Your task to perform on an android device: What's the latest video from GameSpot? Image 0: 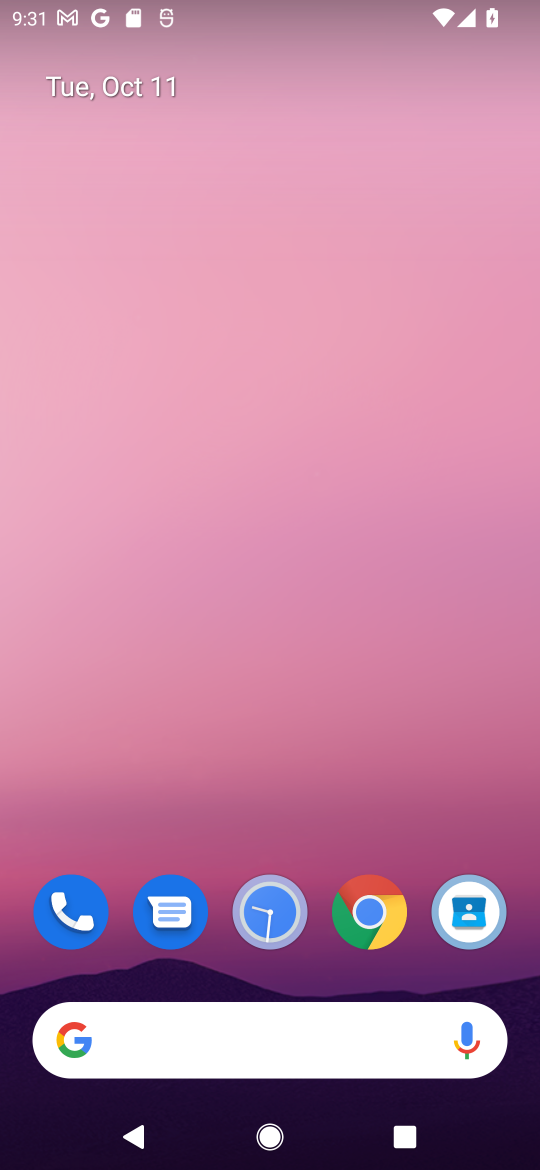
Step 0: drag from (431, 979) to (373, 255)
Your task to perform on an android device: What's the latest video from GameSpot? Image 1: 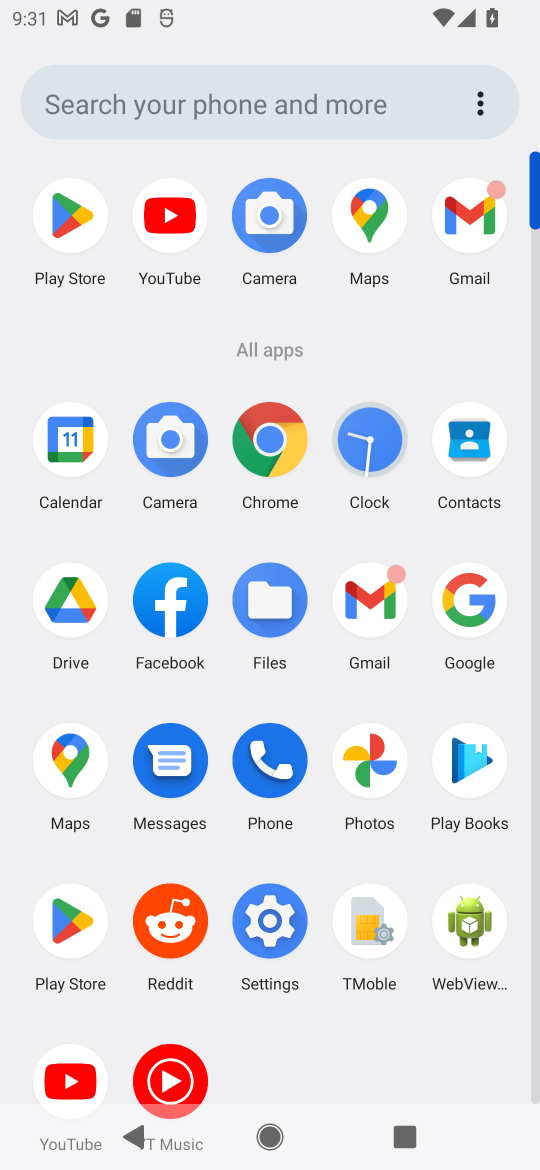
Step 1: click (62, 1077)
Your task to perform on an android device: What's the latest video from GameSpot? Image 2: 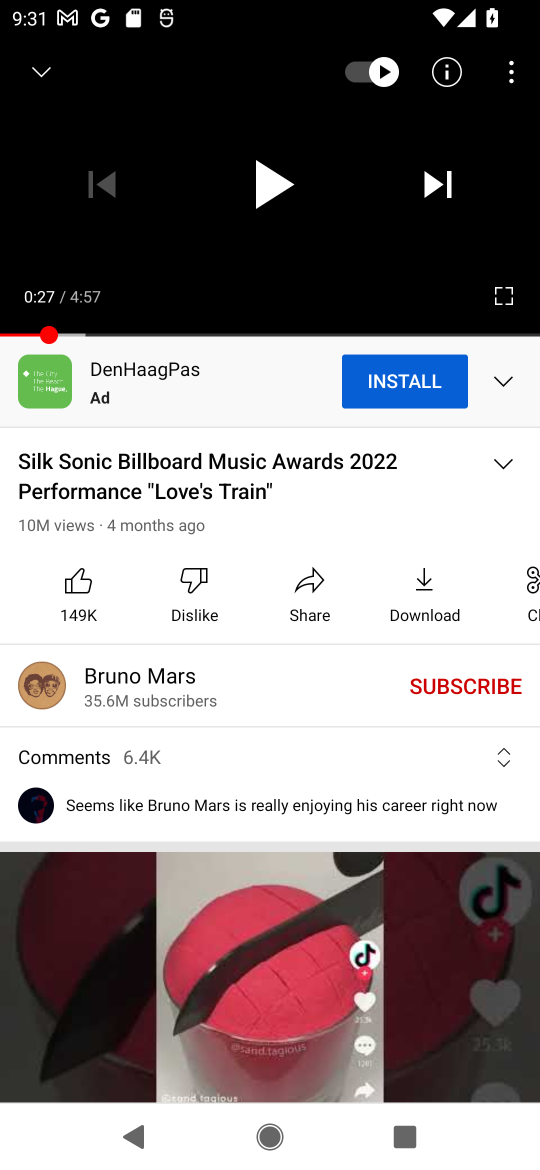
Step 2: click (43, 69)
Your task to perform on an android device: What's the latest video from GameSpot? Image 3: 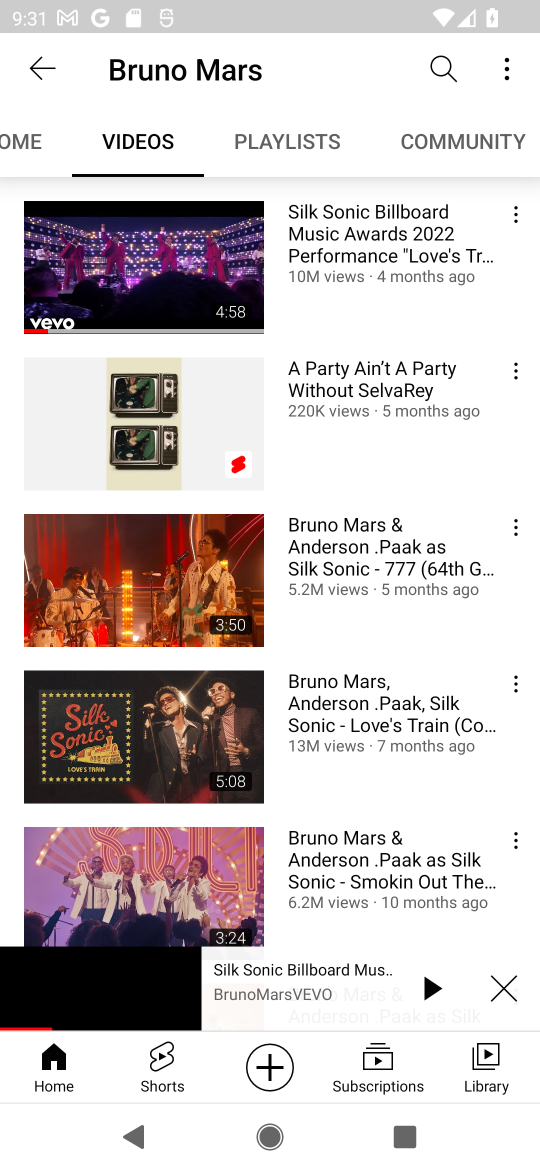
Step 3: click (503, 979)
Your task to perform on an android device: What's the latest video from GameSpot? Image 4: 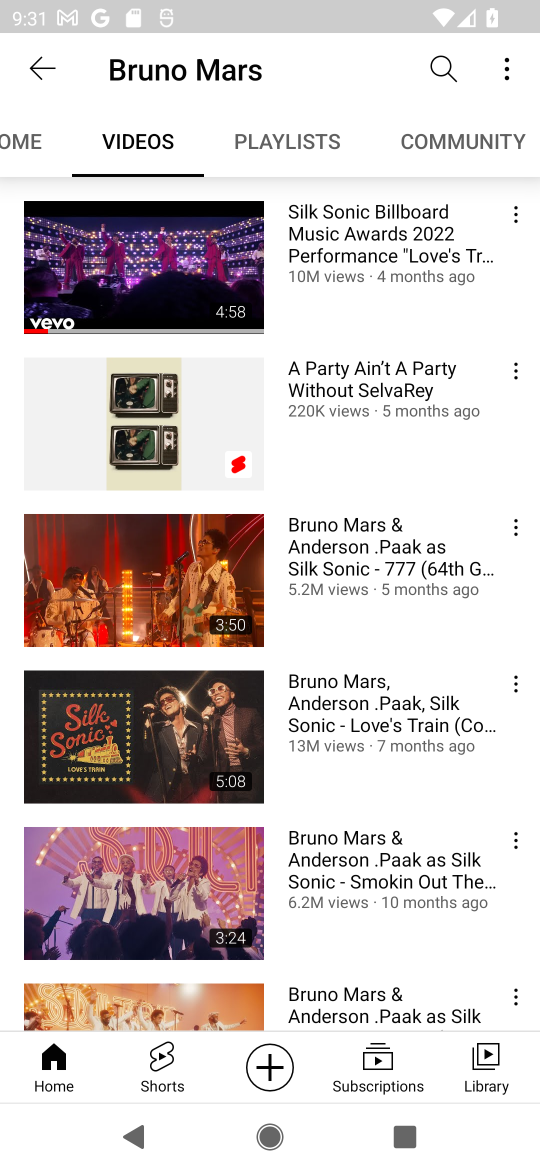
Step 4: click (444, 62)
Your task to perform on an android device: What's the latest video from GameSpot? Image 5: 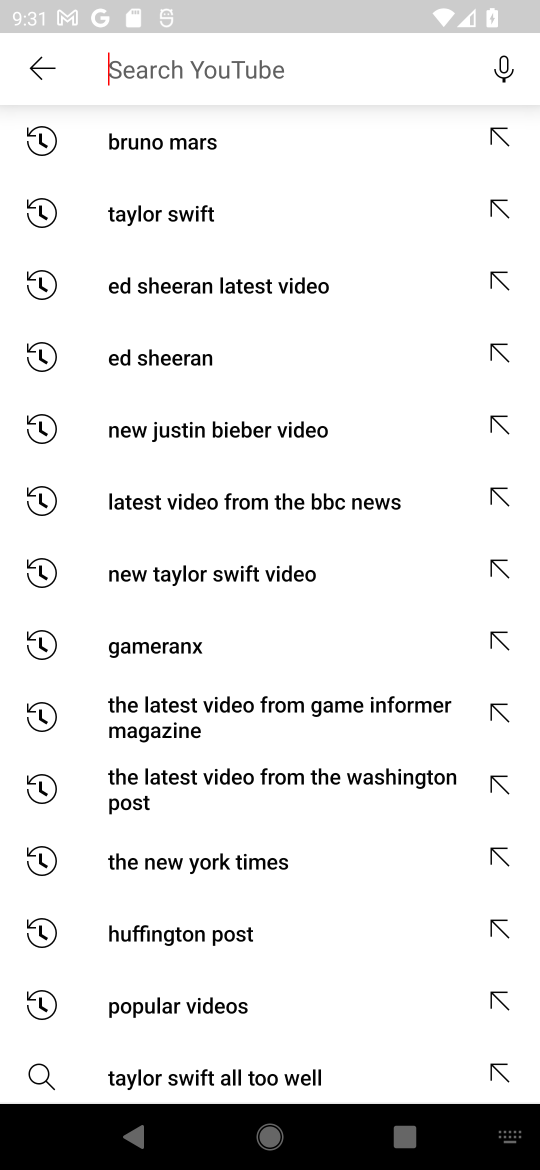
Step 5: type "gamespot"
Your task to perform on an android device: What's the latest video from GameSpot? Image 6: 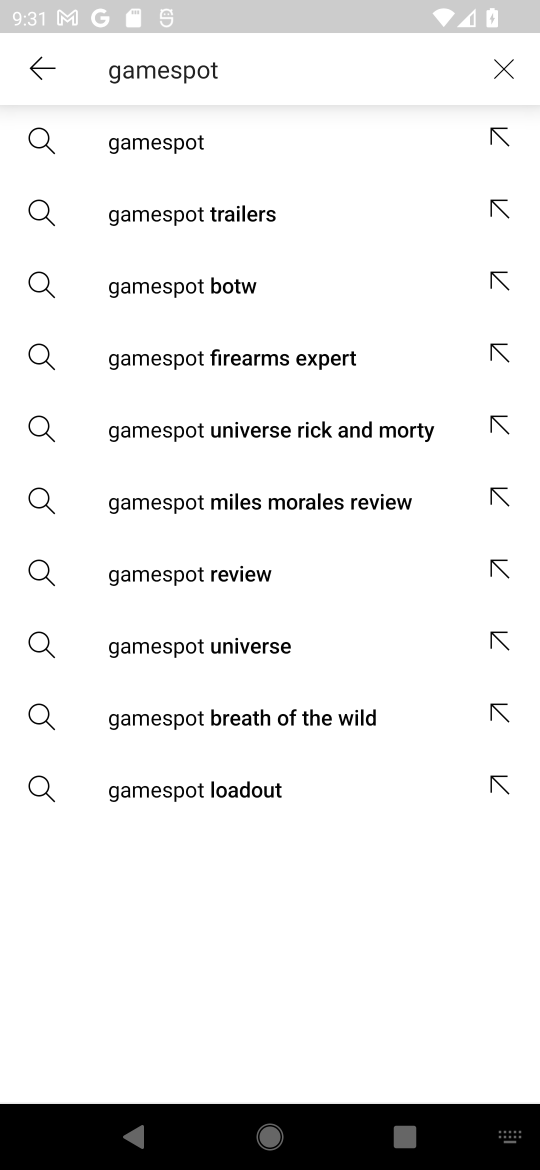
Step 6: click (187, 137)
Your task to perform on an android device: What's the latest video from GameSpot? Image 7: 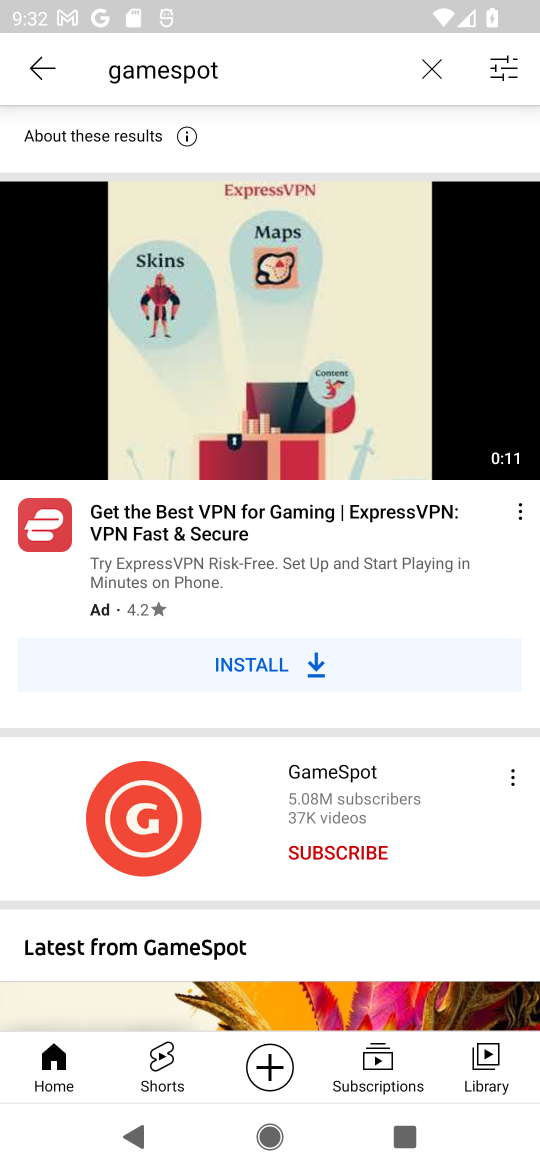
Step 7: click (338, 767)
Your task to perform on an android device: What's the latest video from GameSpot? Image 8: 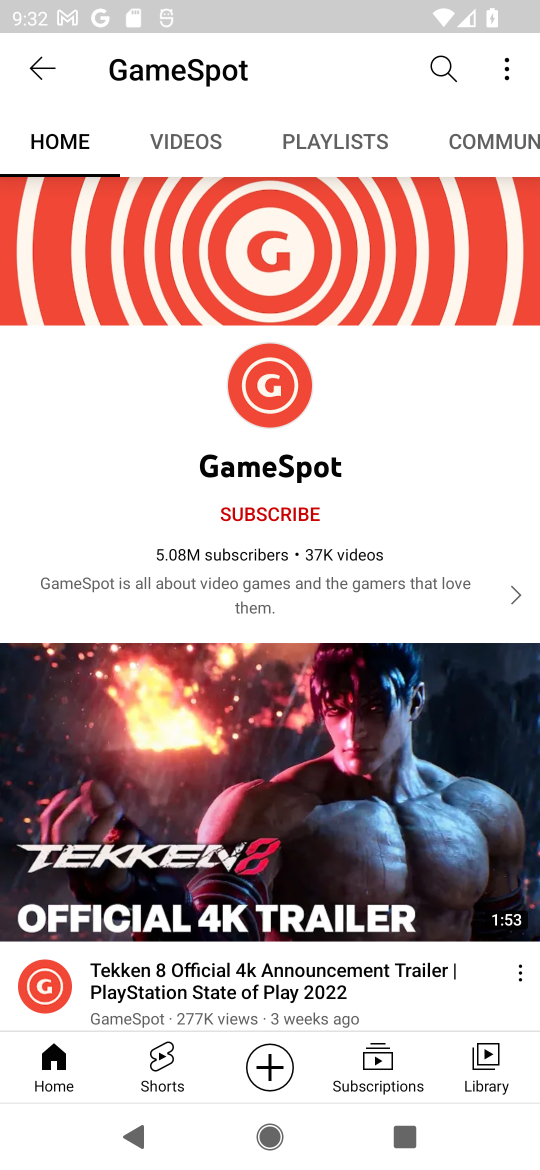
Step 8: click (185, 137)
Your task to perform on an android device: What's the latest video from GameSpot? Image 9: 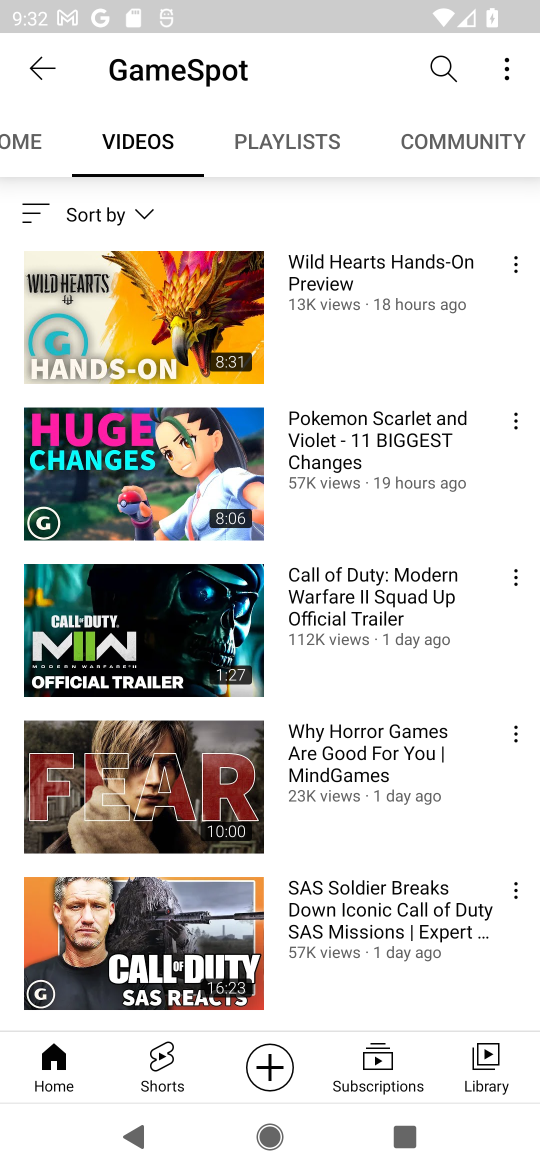
Step 9: click (192, 326)
Your task to perform on an android device: What's the latest video from GameSpot? Image 10: 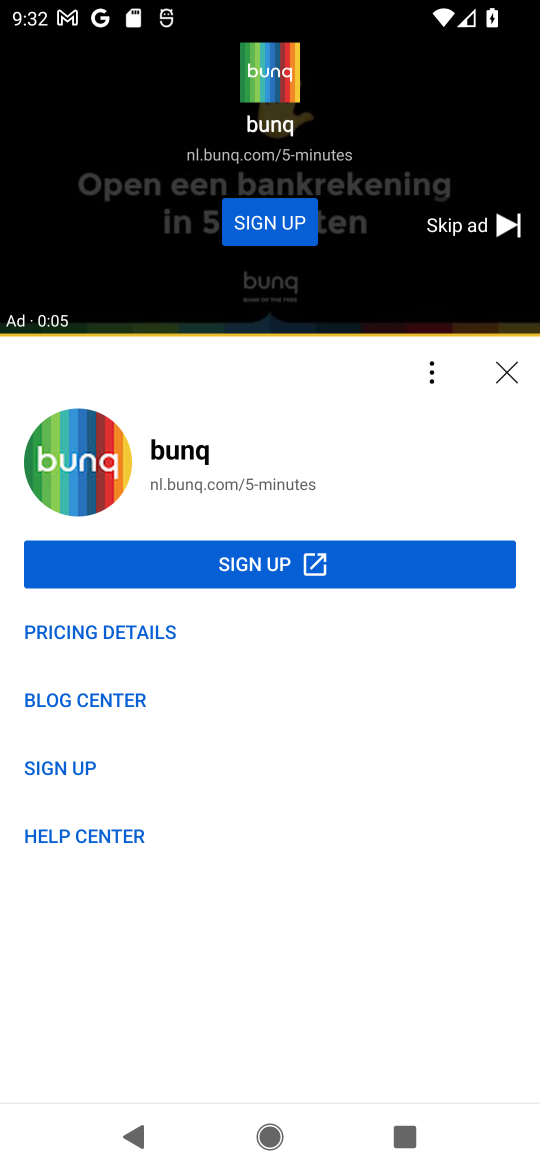
Step 10: click (482, 255)
Your task to perform on an android device: What's the latest video from GameSpot? Image 11: 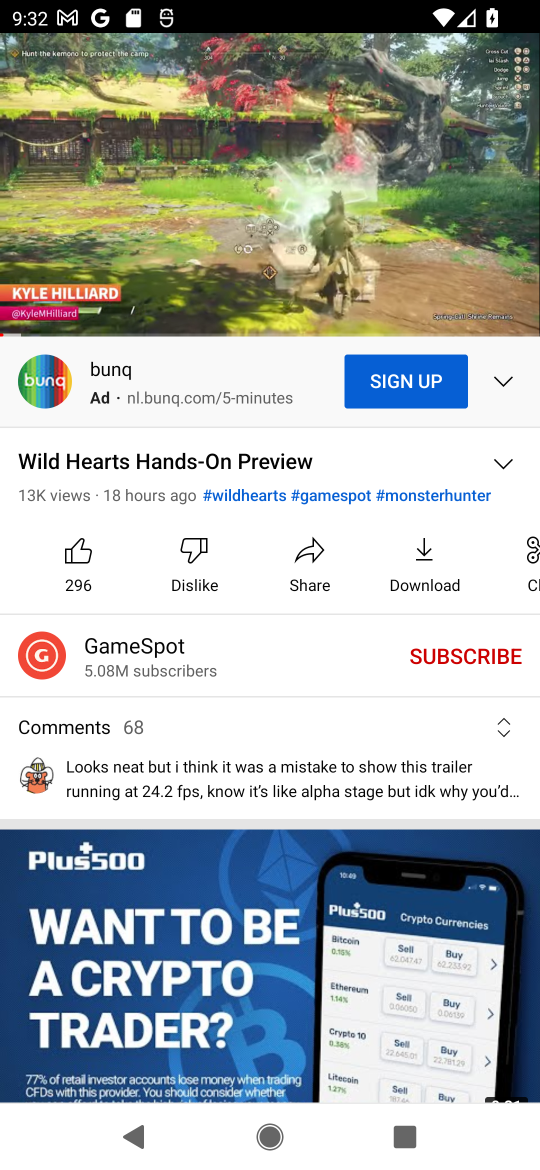
Step 11: click (280, 184)
Your task to perform on an android device: What's the latest video from GameSpot? Image 12: 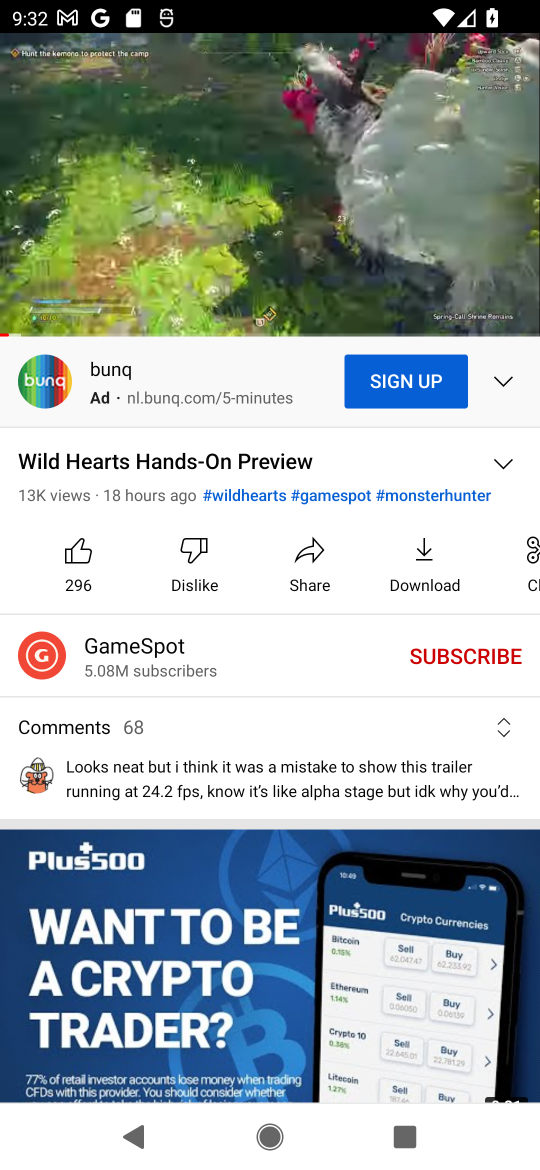
Step 12: click (280, 184)
Your task to perform on an android device: What's the latest video from GameSpot? Image 13: 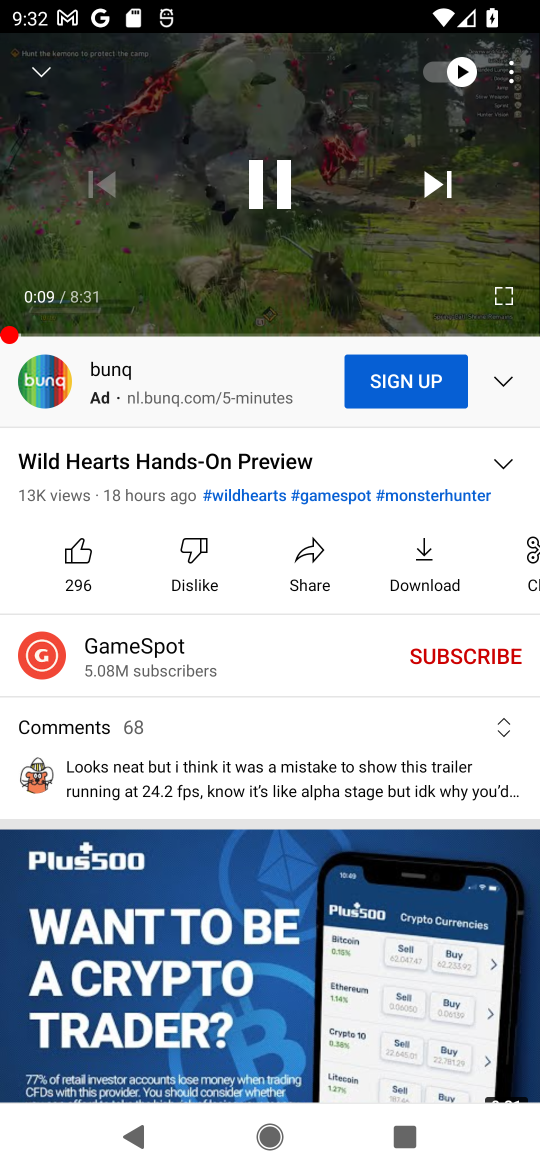
Step 13: click (280, 184)
Your task to perform on an android device: What's the latest video from GameSpot? Image 14: 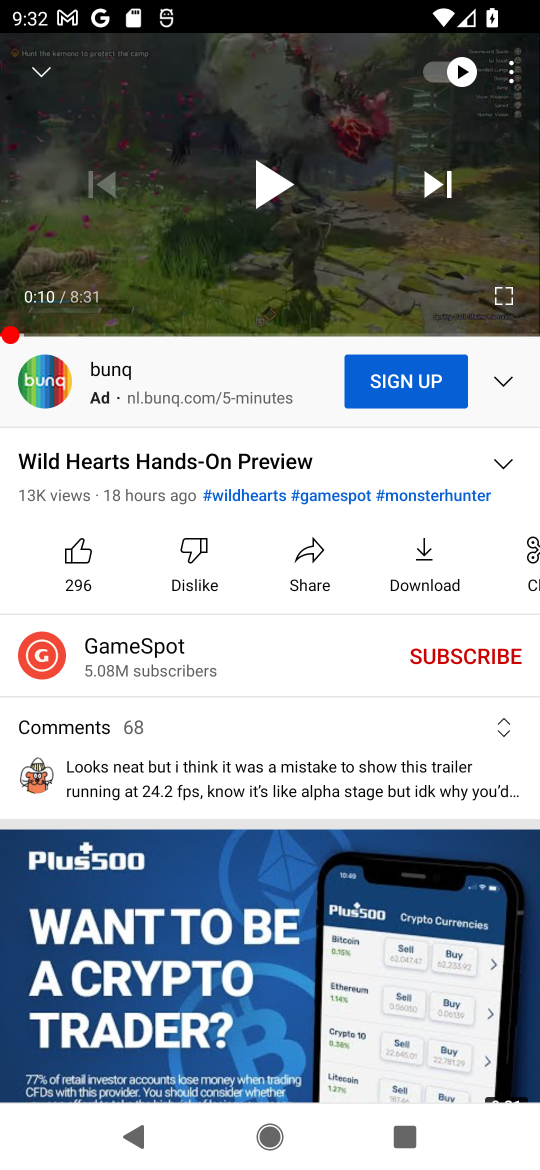
Step 14: task complete